Your task to perform on an android device: Go to location settings Image 0: 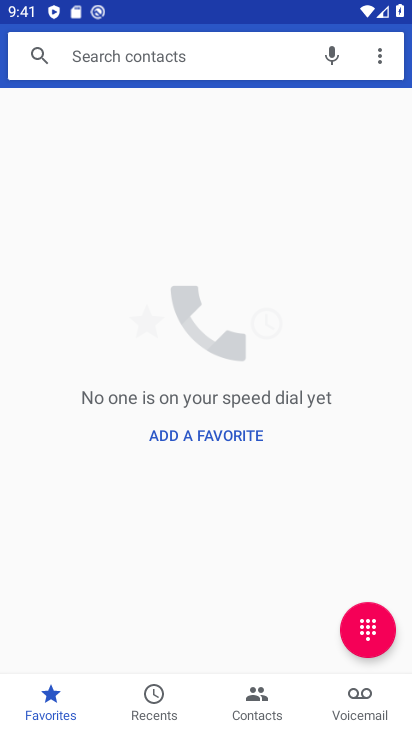
Step 0: press home button
Your task to perform on an android device: Go to location settings Image 1: 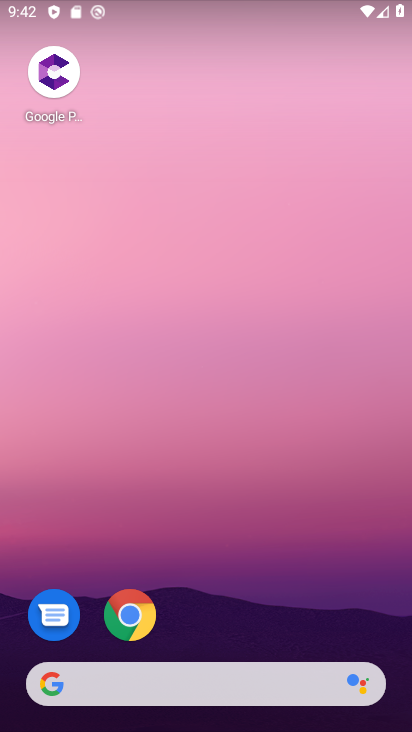
Step 1: drag from (236, 660) to (192, 208)
Your task to perform on an android device: Go to location settings Image 2: 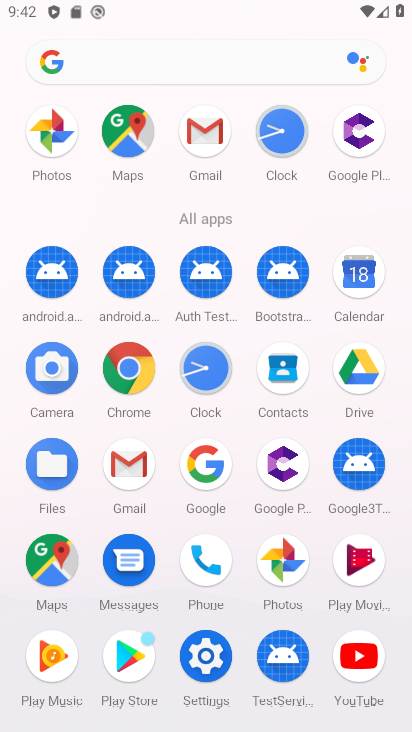
Step 2: click (196, 659)
Your task to perform on an android device: Go to location settings Image 3: 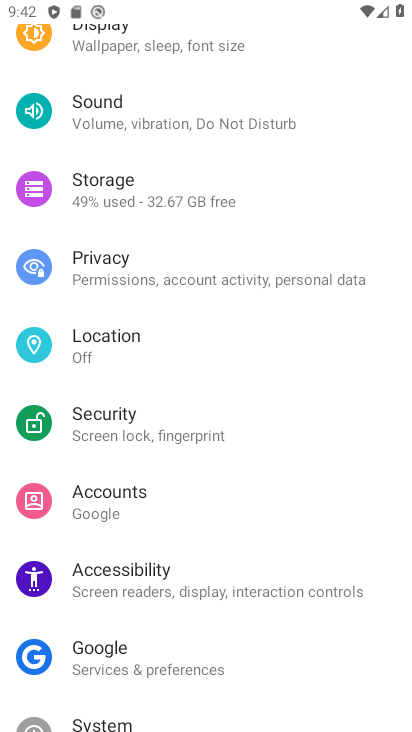
Step 3: click (92, 364)
Your task to perform on an android device: Go to location settings Image 4: 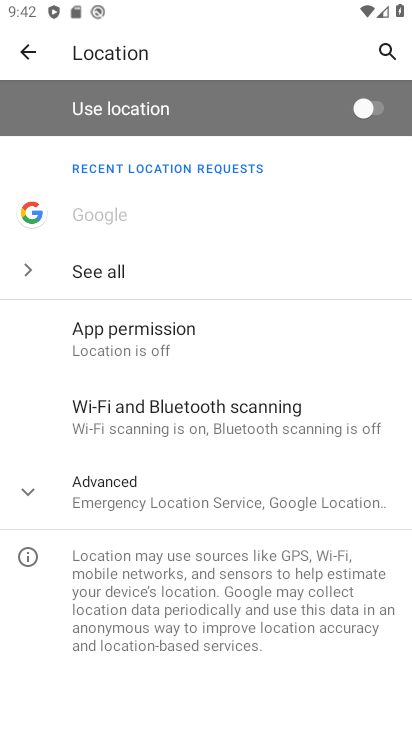
Step 4: click (105, 478)
Your task to perform on an android device: Go to location settings Image 5: 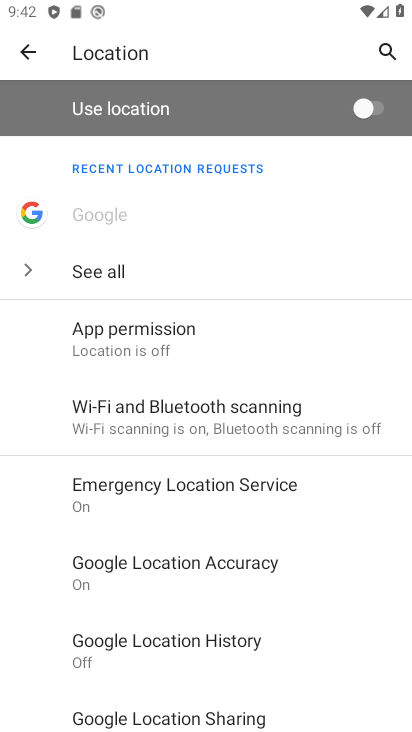
Step 5: click (125, 349)
Your task to perform on an android device: Go to location settings Image 6: 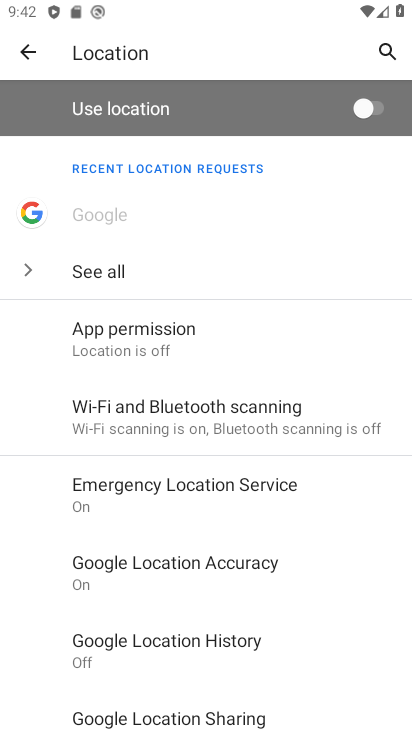
Step 6: task complete